Your task to perform on an android device: Open ESPN.com Image 0: 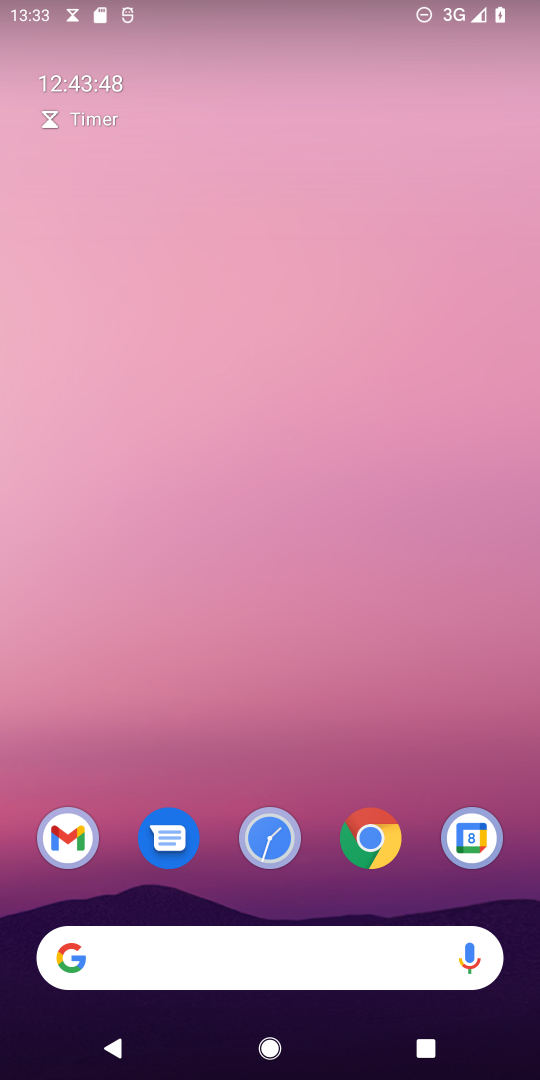
Step 0: press home button
Your task to perform on an android device: Open ESPN.com Image 1: 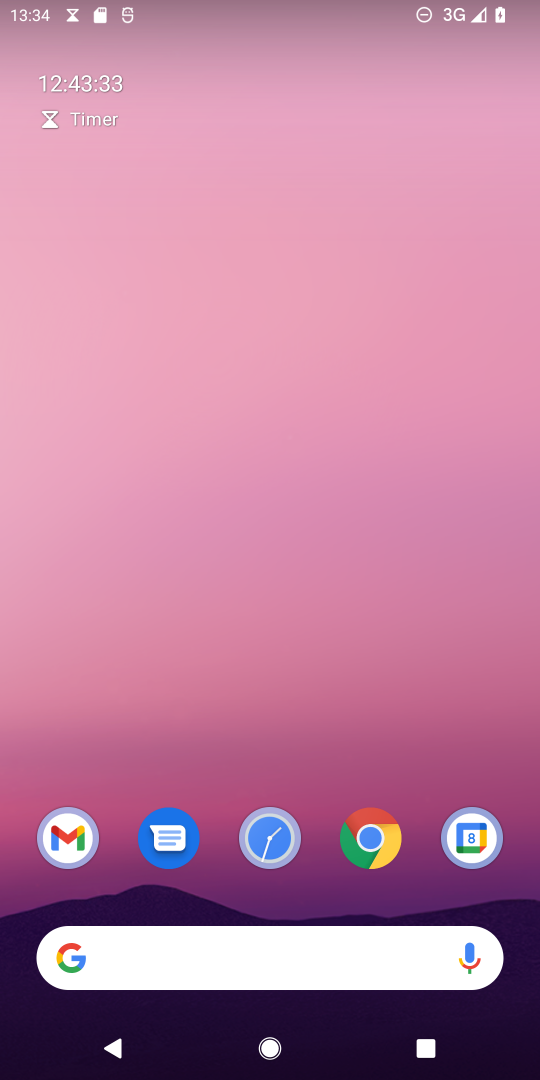
Step 1: click (59, 960)
Your task to perform on an android device: Open ESPN.com Image 2: 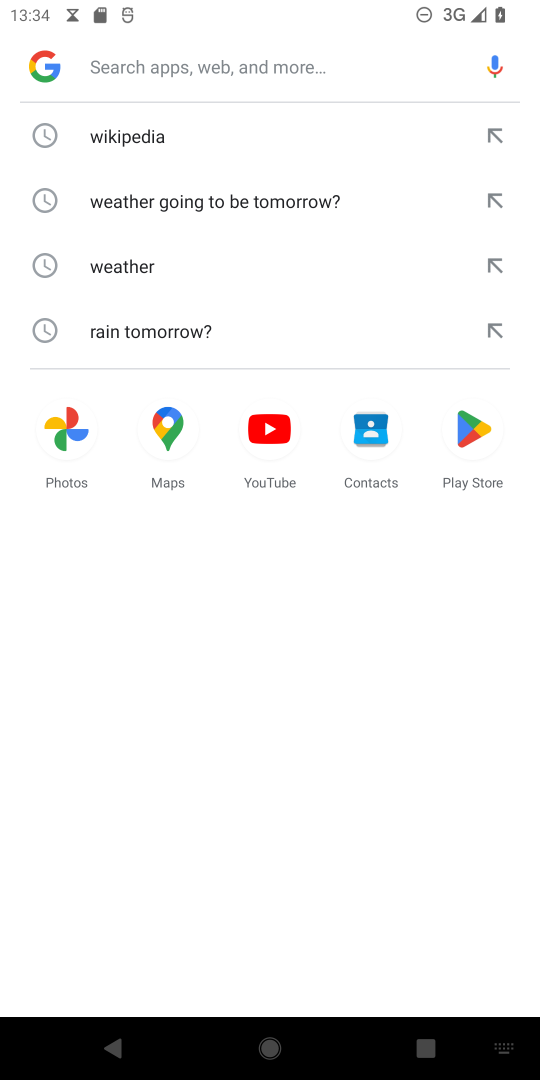
Step 2: type " ESPN.com"
Your task to perform on an android device: Open ESPN.com Image 3: 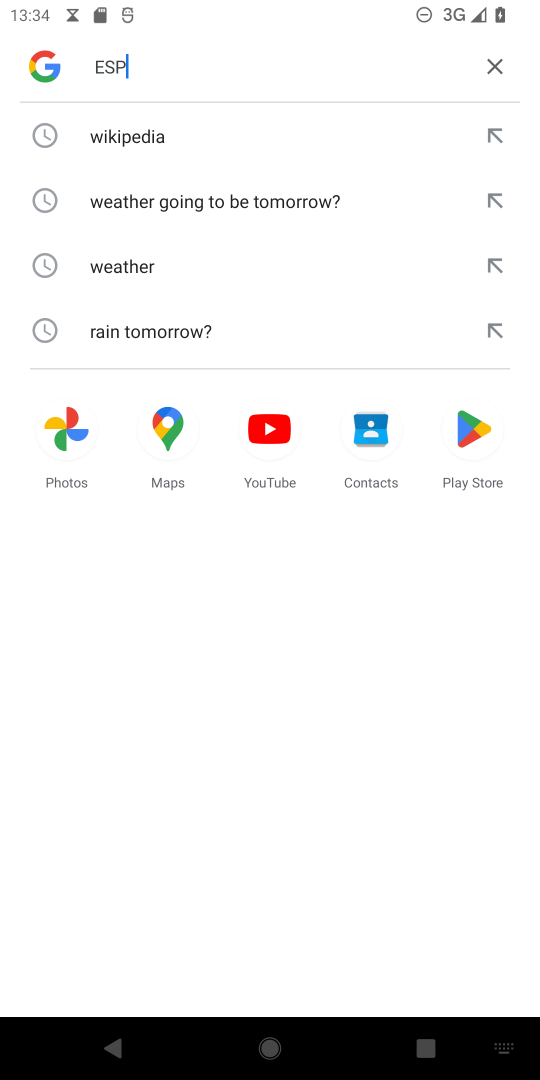
Step 3: press enter
Your task to perform on an android device: Open ESPN.com Image 4: 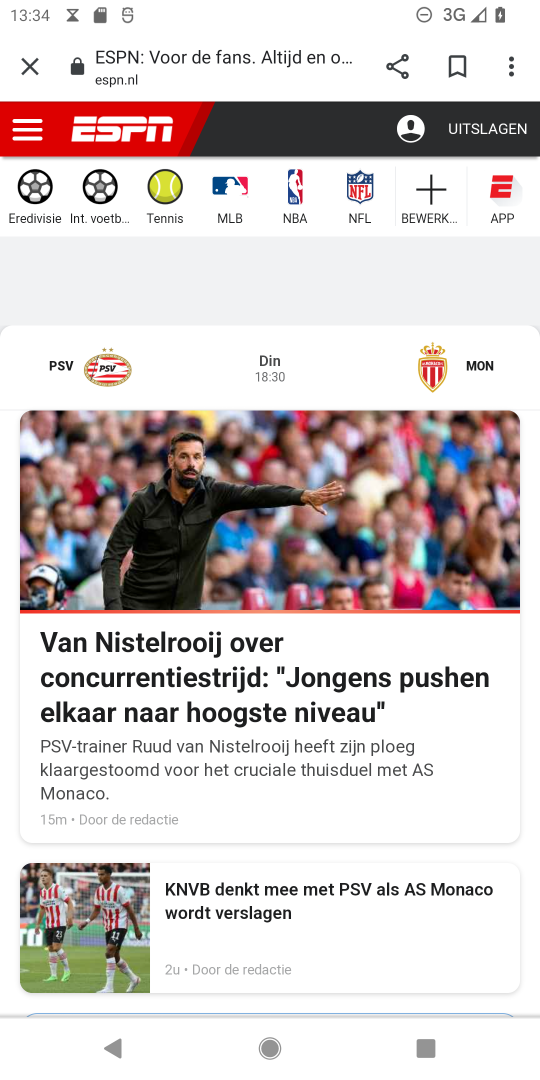
Step 4: task complete